Your task to perform on an android device: Go to battery settings Image 0: 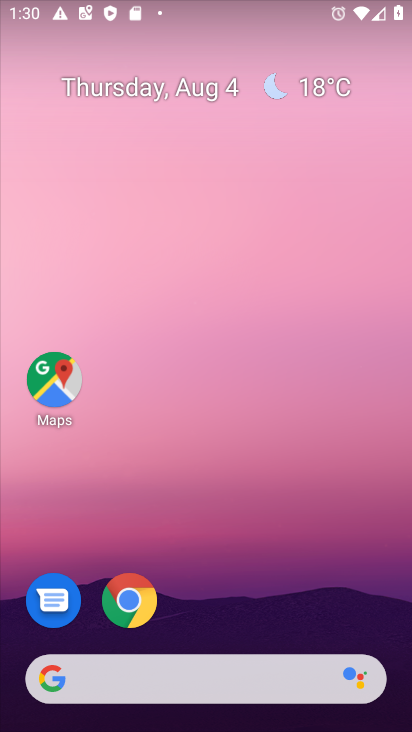
Step 0: press home button
Your task to perform on an android device: Go to battery settings Image 1: 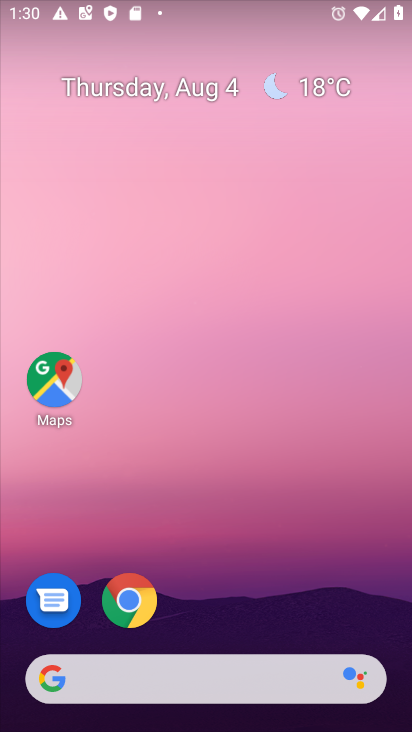
Step 1: drag from (143, 653) to (238, 199)
Your task to perform on an android device: Go to battery settings Image 2: 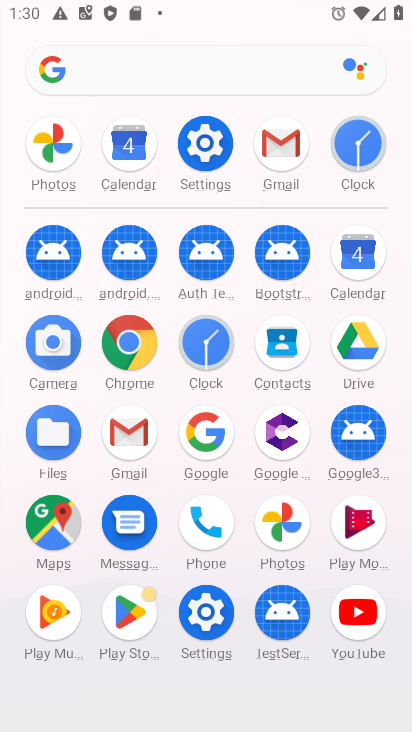
Step 2: click (196, 141)
Your task to perform on an android device: Go to battery settings Image 3: 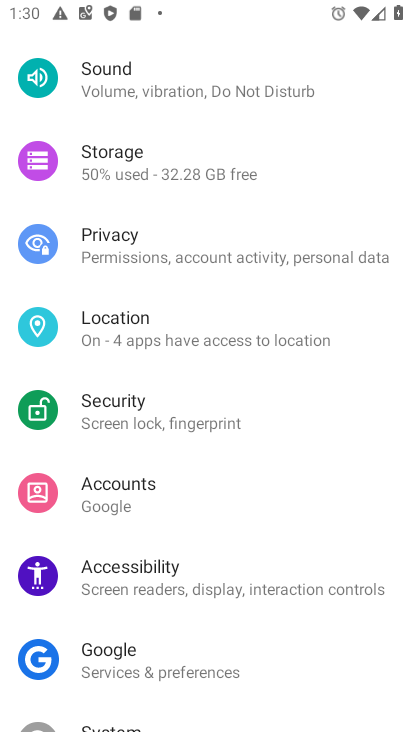
Step 3: drag from (315, 154) to (340, 553)
Your task to perform on an android device: Go to battery settings Image 4: 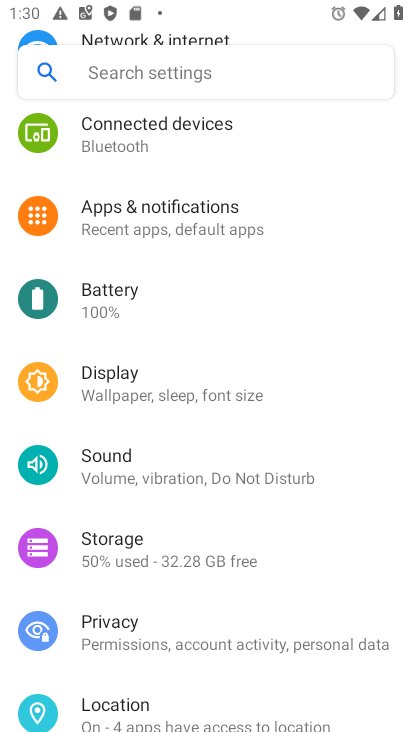
Step 4: click (124, 289)
Your task to perform on an android device: Go to battery settings Image 5: 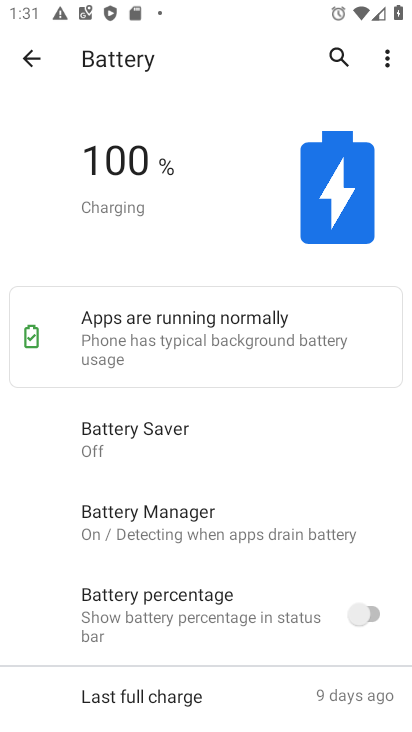
Step 5: task complete